Your task to perform on an android device: Open eBay Image 0: 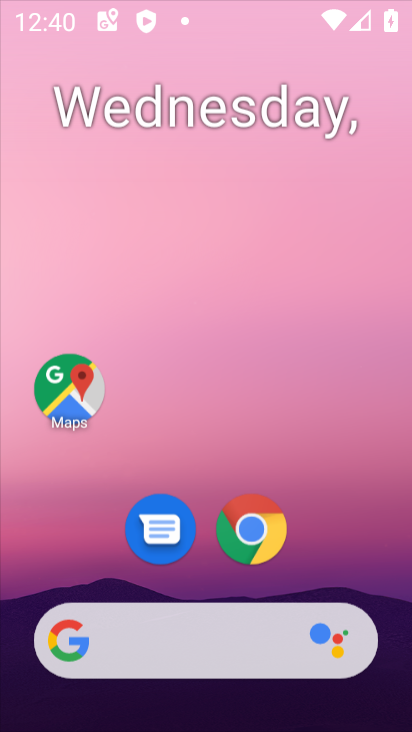
Step 0: click (75, 389)
Your task to perform on an android device: Open eBay Image 1: 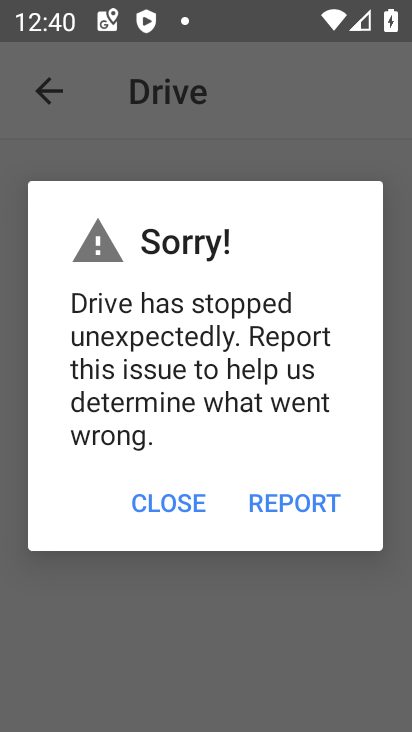
Step 1: press home button
Your task to perform on an android device: Open eBay Image 2: 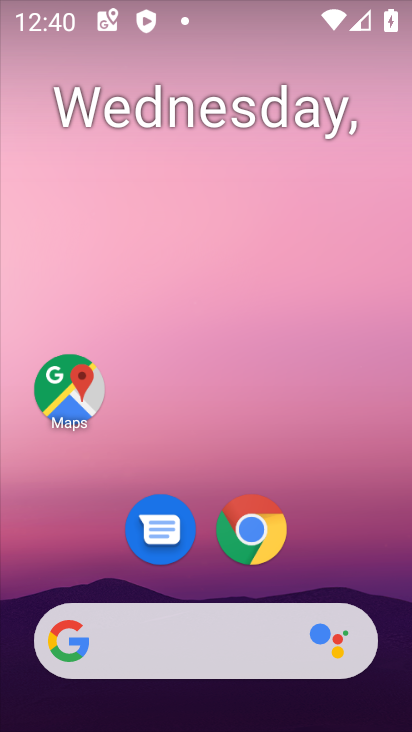
Step 2: click (257, 534)
Your task to perform on an android device: Open eBay Image 3: 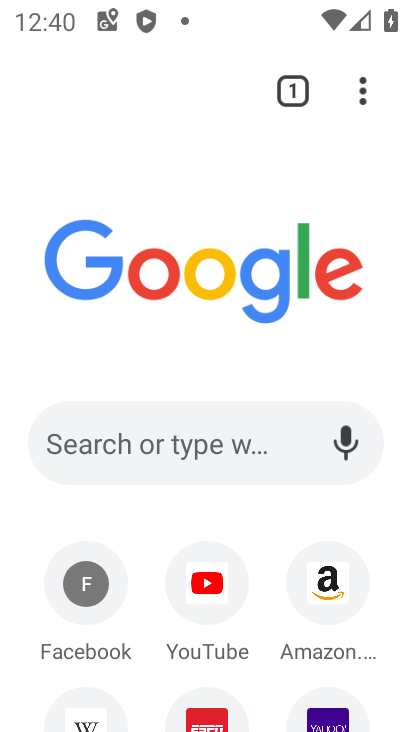
Step 3: click (132, 439)
Your task to perform on an android device: Open eBay Image 4: 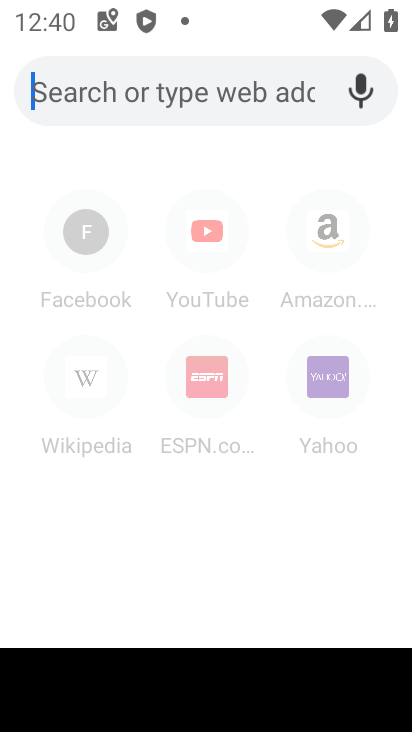
Step 4: type "ebay"
Your task to perform on an android device: Open eBay Image 5: 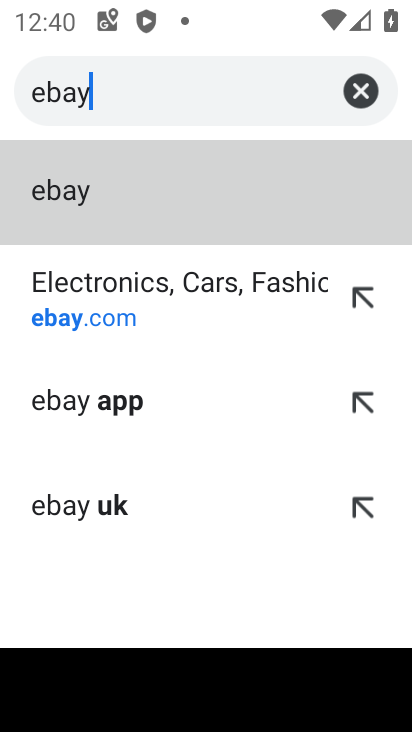
Step 5: click (84, 204)
Your task to perform on an android device: Open eBay Image 6: 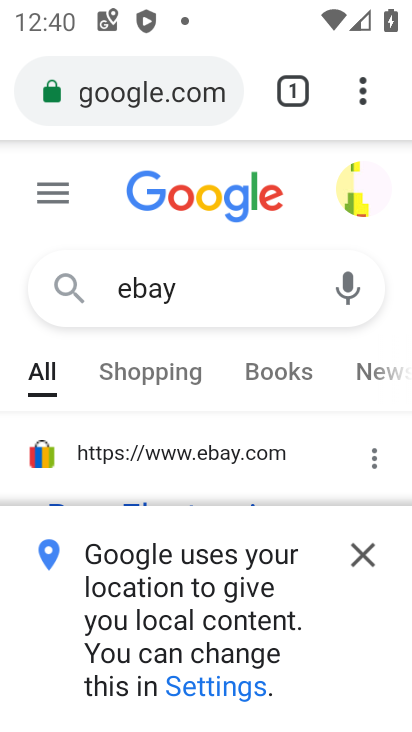
Step 6: click (361, 558)
Your task to perform on an android device: Open eBay Image 7: 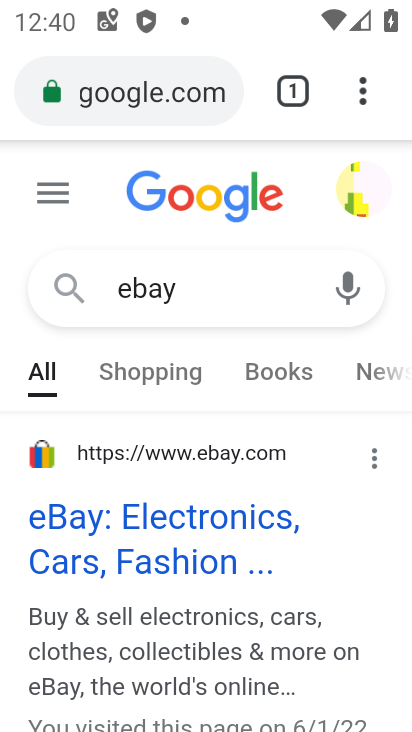
Step 7: click (145, 504)
Your task to perform on an android device: Open eBay Image 8: 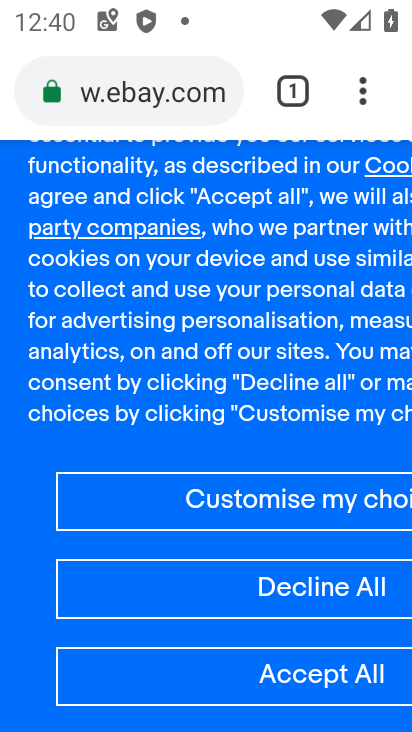
Step 8: drag from (305, 648) to (279, 447)
Your task to perform on an android device: Open eBay Image 9: 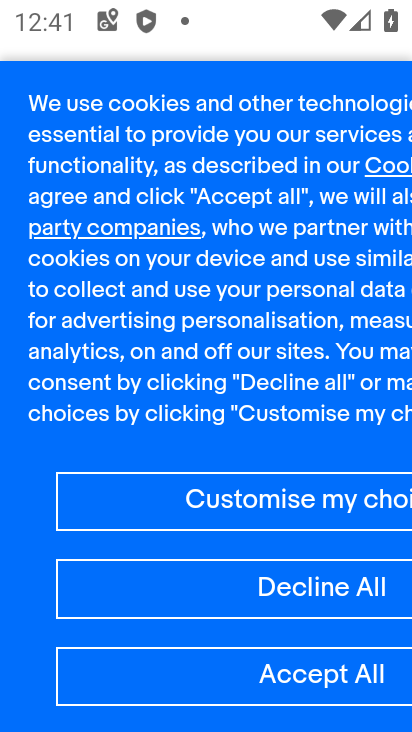
Step 9: click (300, 675)
Your task to perform on an android device: Open eBay Image 10: 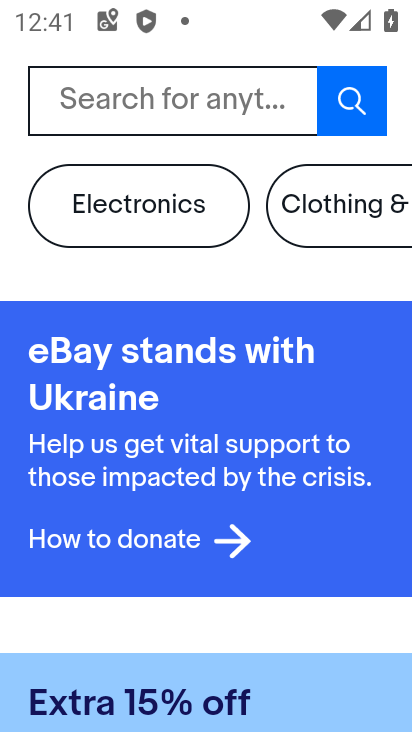
Step 10: task complete